Your task to perform on an android device: see tabs open on other devices in the chrome app Image 0: 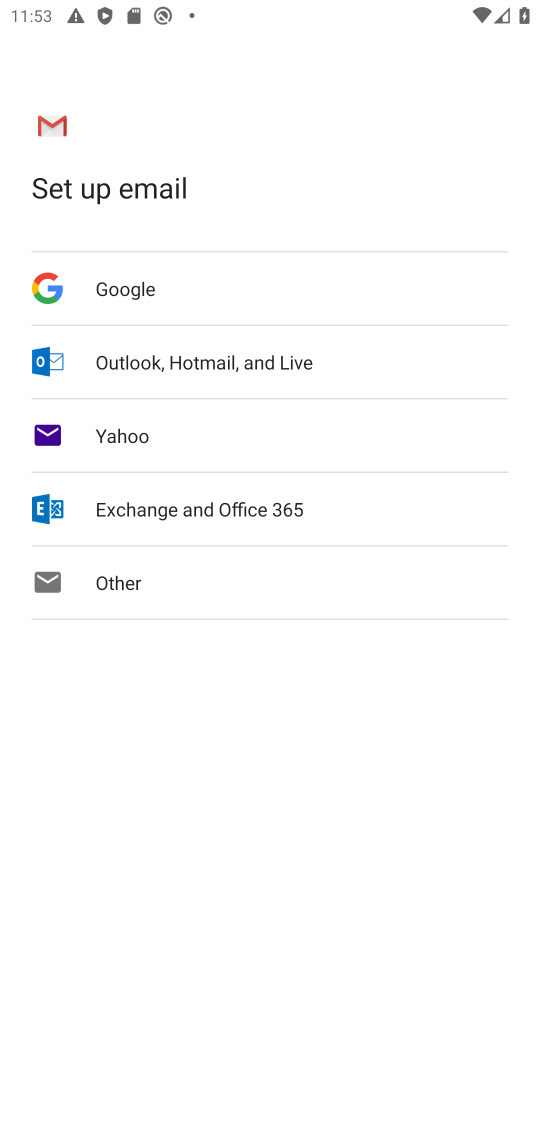
Step 0: press home button
Your task to perform on an android device: see tabs open on other devices in the chrome app Image 1: 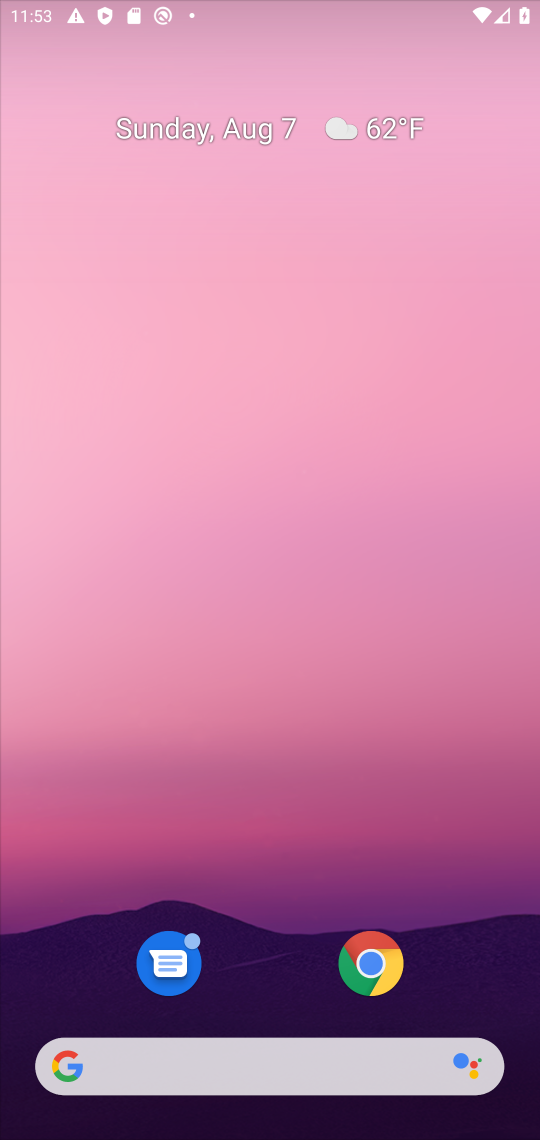
Step 1: drag from (452, 802) to (275, 120)
Your task to perform on an android device: see tabs open on other devices in the chrome app Image 2: 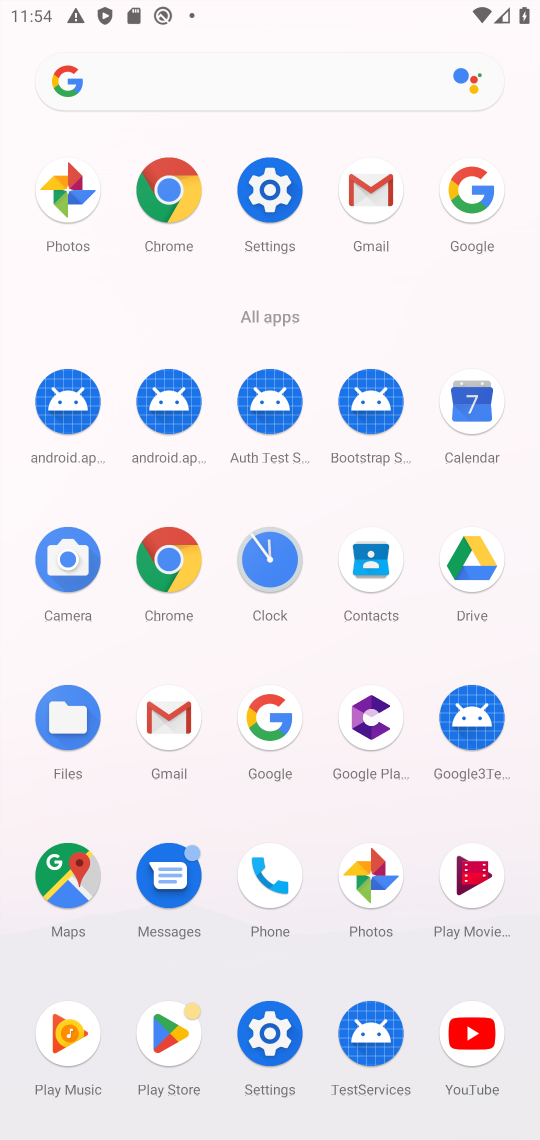
Step 2: click (166, 545)
Your task to perform on an android device: see tabs open on other devices in the chrome app Image 3: 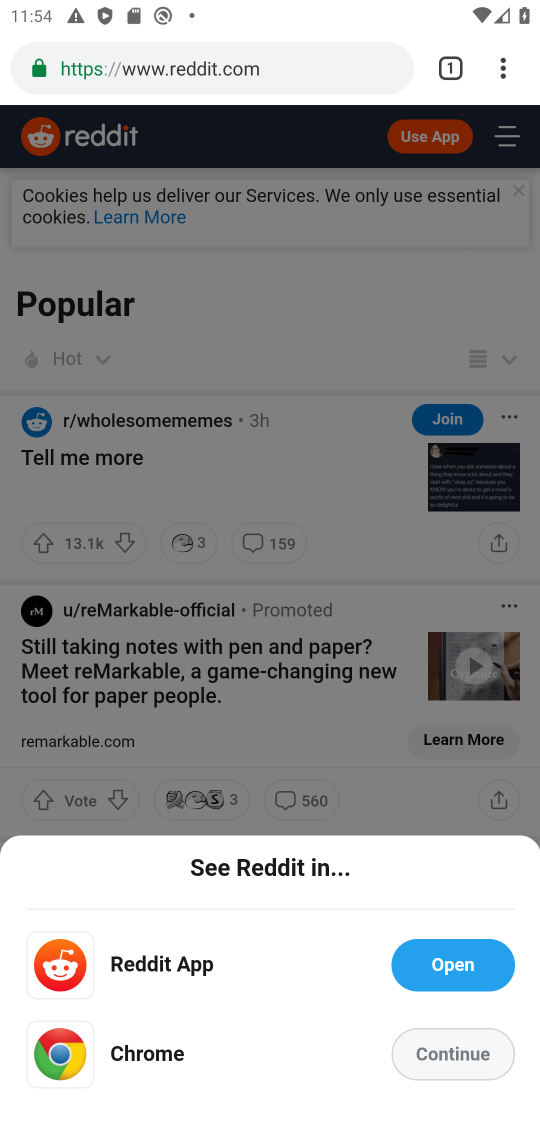
Step 3: task complete